Your task to perform on an android device: What is the news today? Image 0: 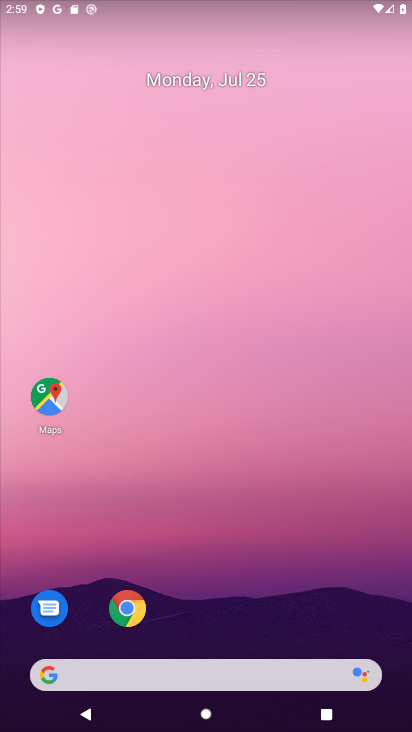
Step 0: click (194, 678)
Your task to perform on an android device: What is the news today? Image 1: 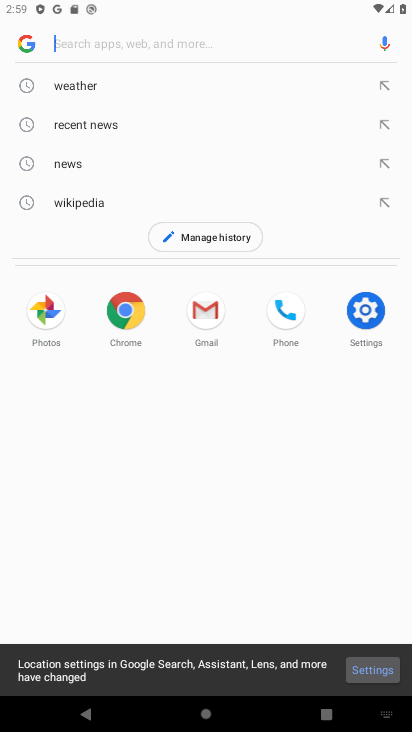
Step 1: click (70, 160)
Your task to perform on an android device: What is the news today? Image 2: 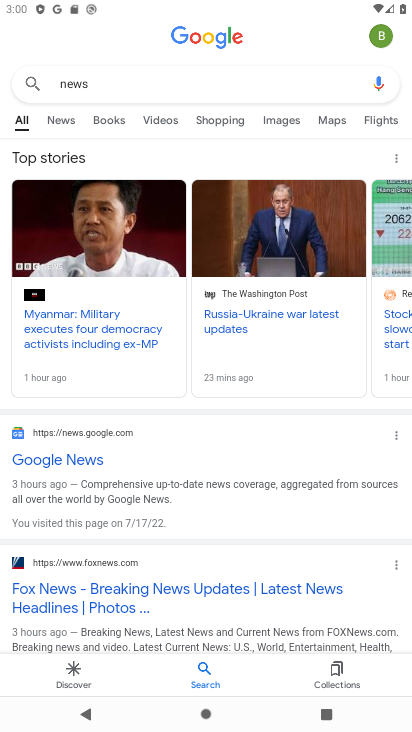
Step 2: task complete